Your task to perform on an android device: When is my next meeting? Image 0: 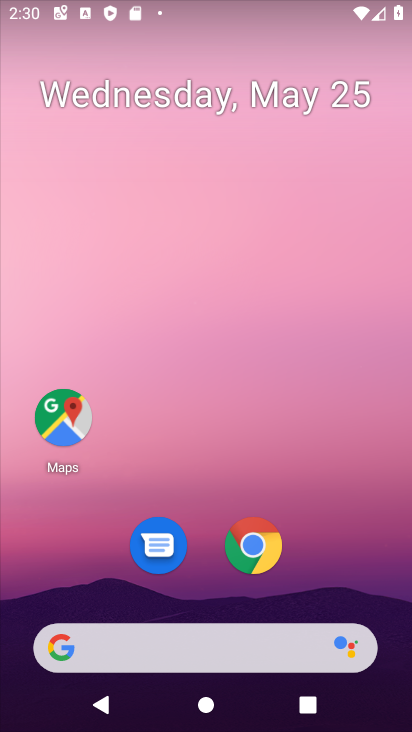
Step 0: drag from (330, 551) to (323, 337)
Your task to perform on an android device: When is my next meeting? Image 1: 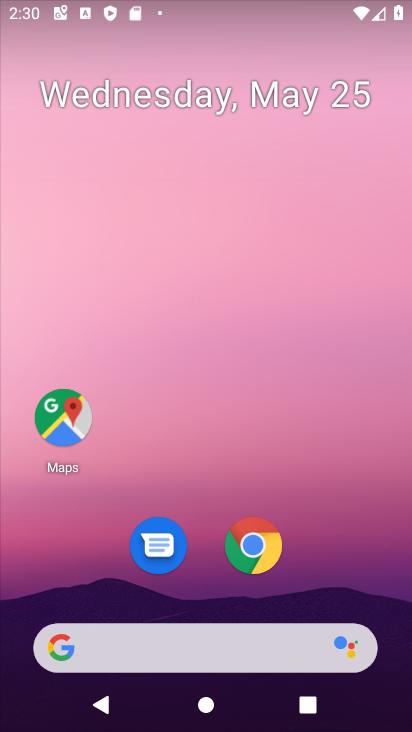
Step 1: drag from (337, 557) to (326, 89)
Your task to perform on an android device: When is my next meeting? Image 2: 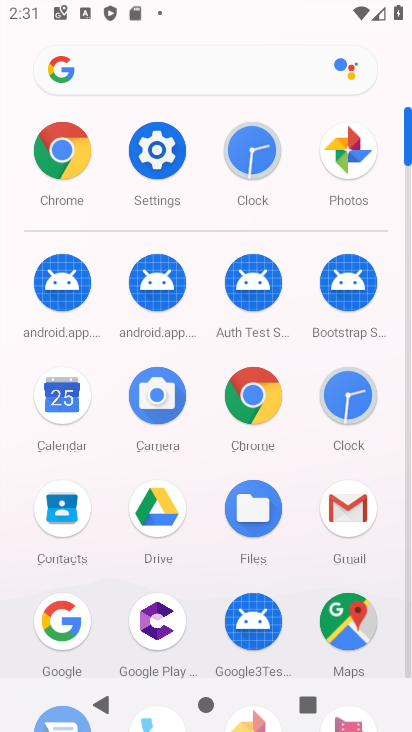
Step 2: click (58, 384)
Your task to perform on an android device: When is my next meeting? Image 3: 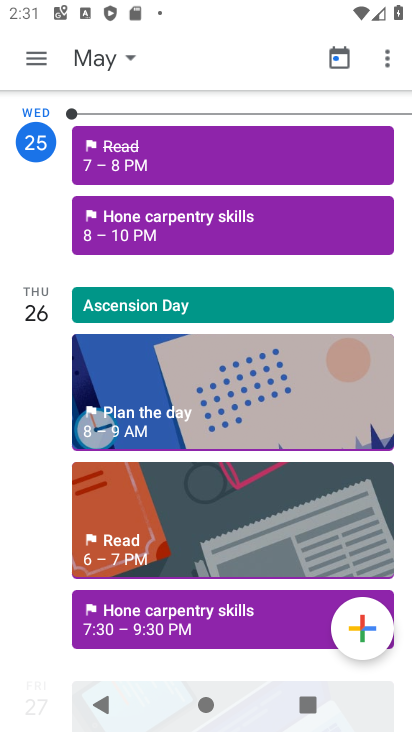
Step 3: task complete